Your task to perform on an android device: turn on location history Image 0: 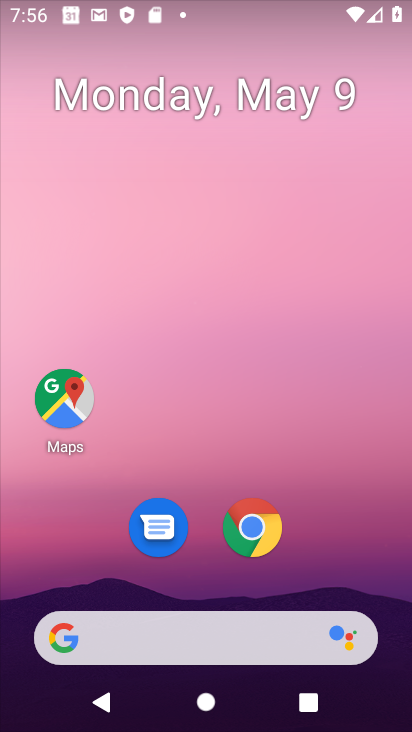
Step 0: drag from (250, 639) to (231, 282)
Your task to perform on an android device: turn on location history Image 1: 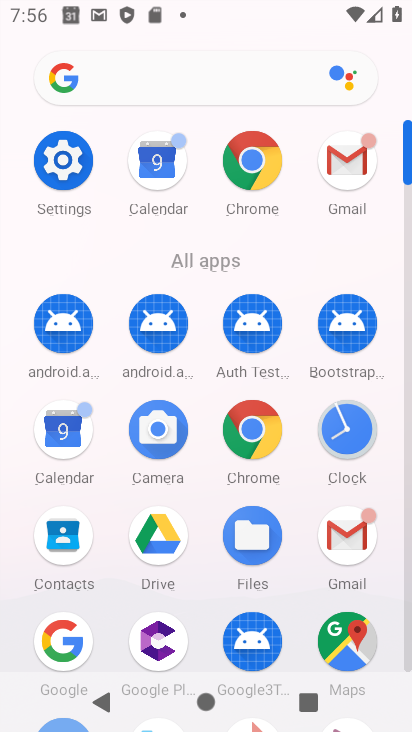
Step 1: click (62, 197)
Your task to perform on an android device: turn on location history Image 2: 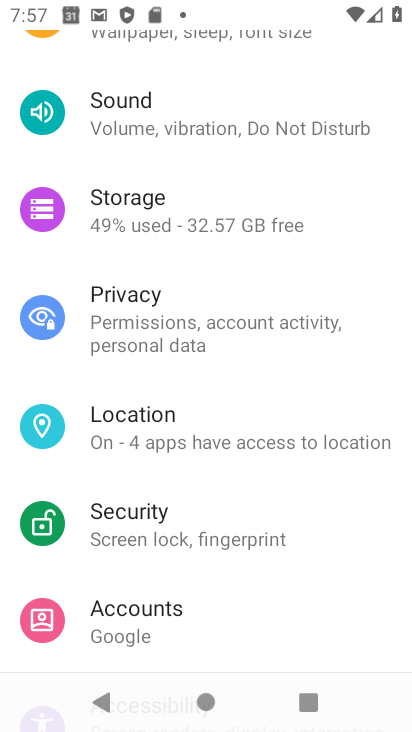
Step 2: click (182, 449)
Your task to perform on an android device: turn on location history Image 3: 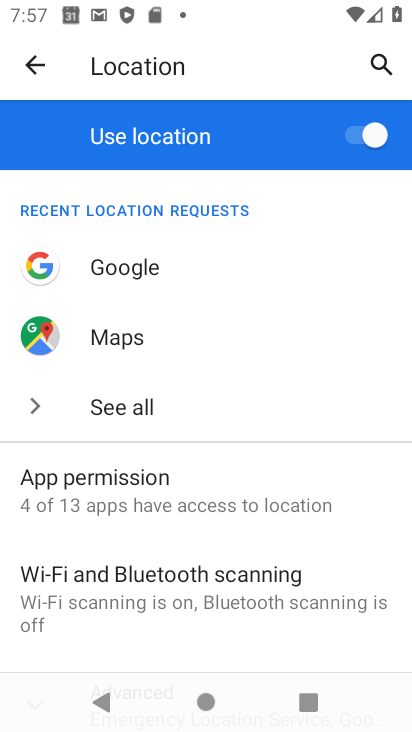
Step 3: drag from (241, 572) to (246, 242)
Your task to perform on an android device: turn on location history Image 4: 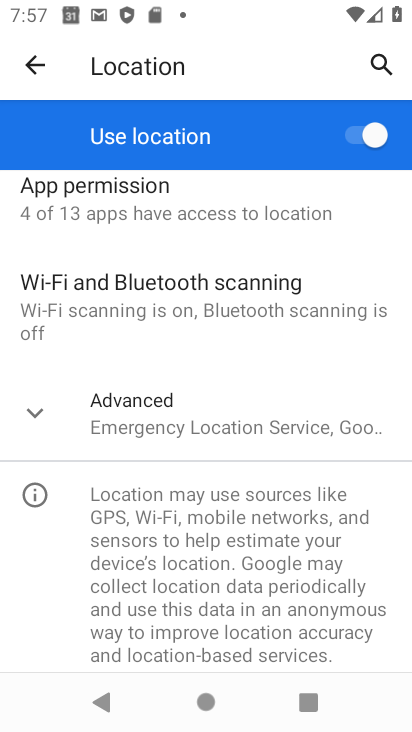
Step 4: click (211, 425)
Your task to perform on an android device: turn on location history Image 5: 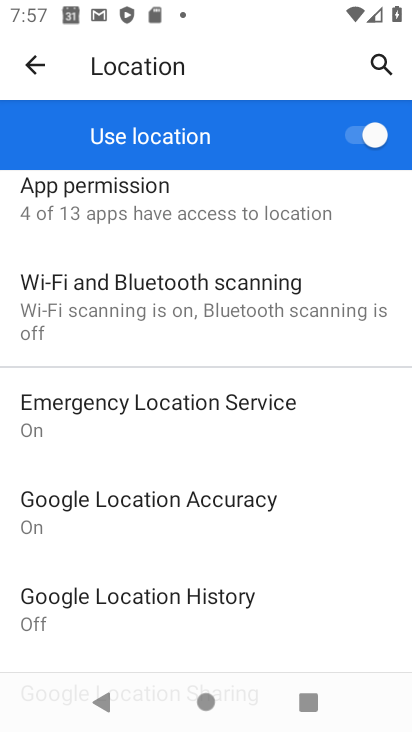
Step 5: drag from (160, 560) to (164, 371)
Your task to perform on an android device: turn on location history Image 6: 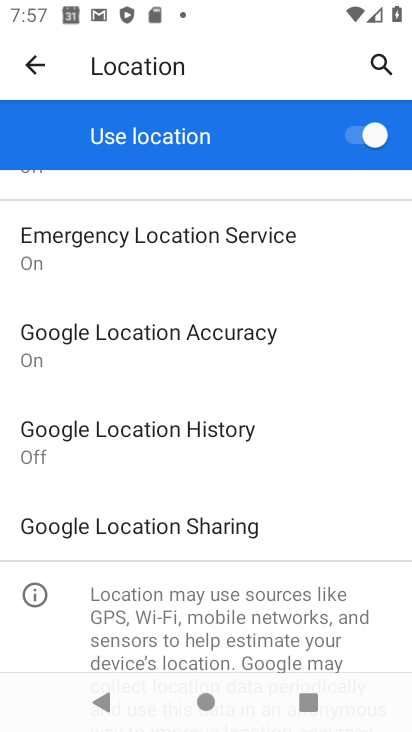
Step 6: click (181, 438)
Your task to perform on an android device: turn on location history Image 7: 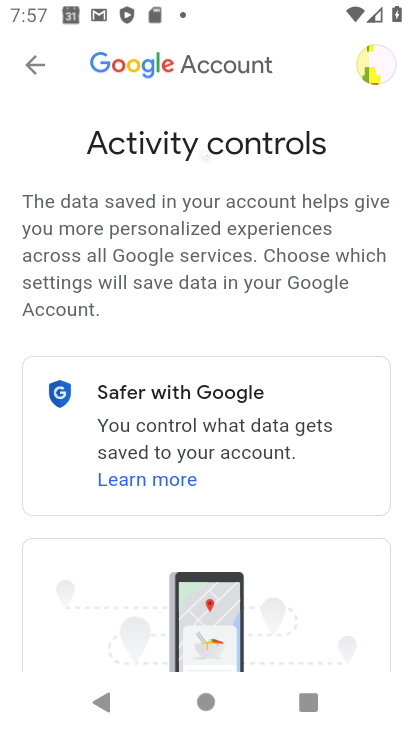
Step 7: task complete